Your task to perform on an android device: Show me popular games on the Play Store Image 0: 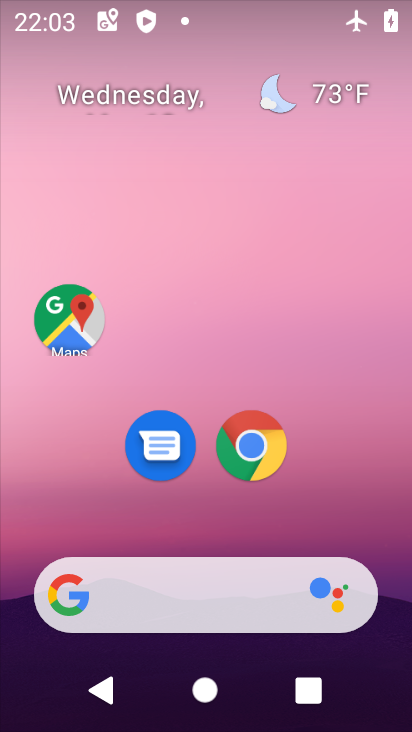
Step 0: drag from (296, 535) to (311, 349)
Your task to perform on an android device: Show me popular games on the Play Store Image 1: 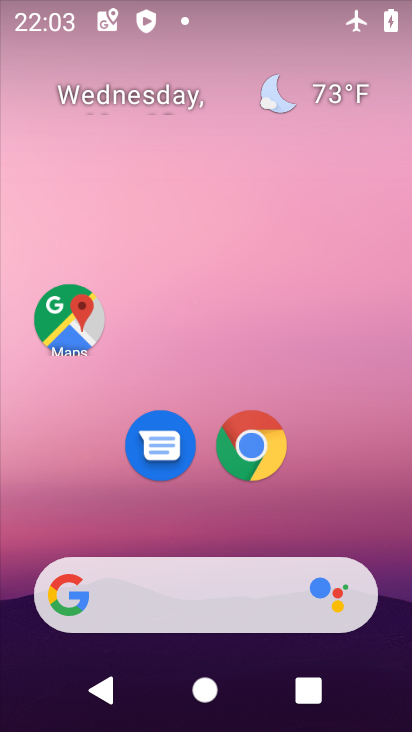
Step 1: drag from (272, 541) to (303, 264)
Your task to perform on an android device: Show me popular games on the Play Store Image 2: 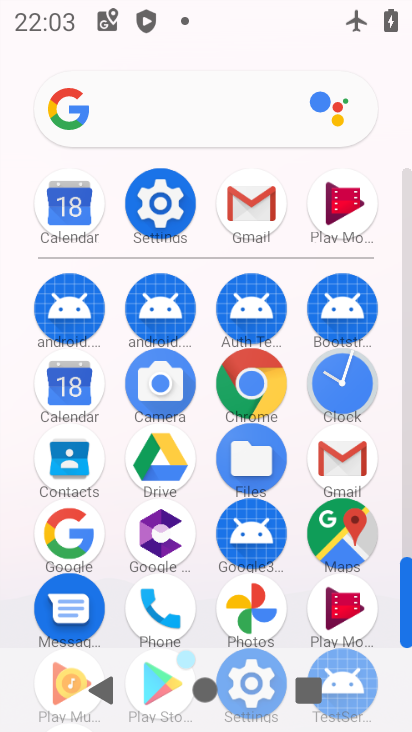
Step 2: drag from (182, 615) to (216, 366)
Your task to perform on an android device: Show me popular games on the Play Store Image 3: 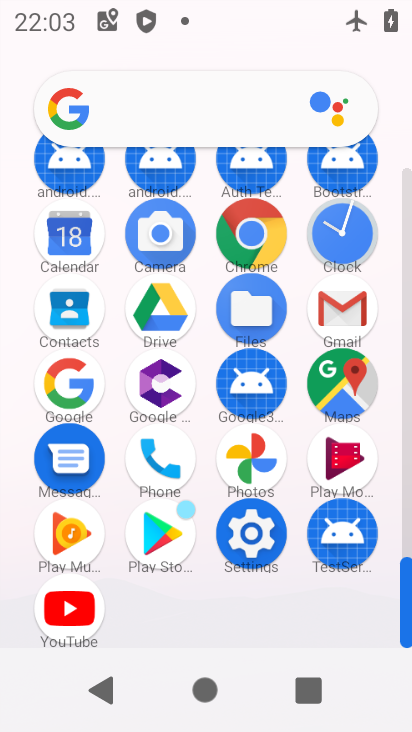
Step 3: click (165, 517)
Your task to perform on an android device: Show me popular games on the Play Store Image 4: 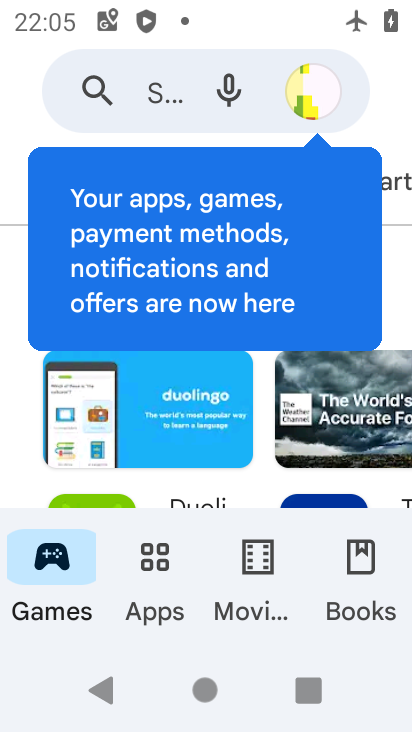
Step 4: task complete